Your task to perform on an android device: clear all cookies in the chrome app Image 0: 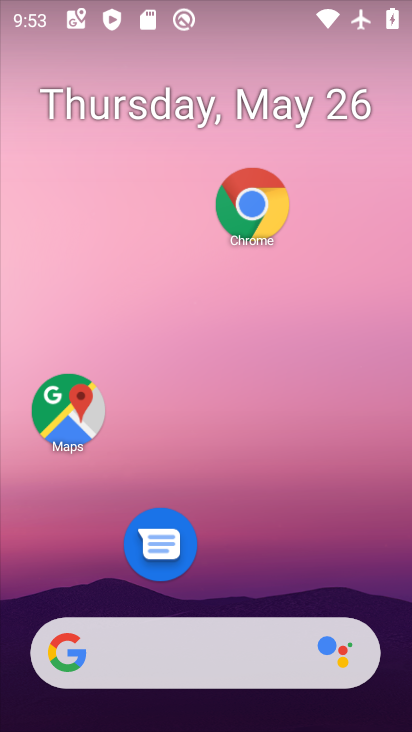
Step 0: click (247, 199)
Your task to perform on an android device: clear all cookies in the chrome app Image 1: 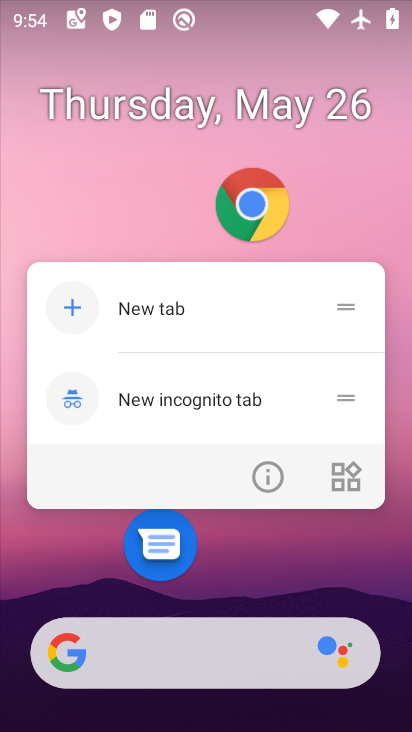
Step 1: click (251, 202)
Your task to perform on an android device: clear all cookies in the chrome app Image 2: 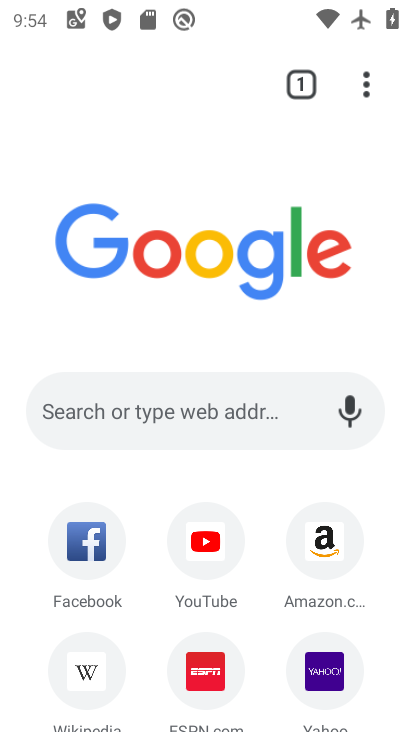
Step 2: click (365, 81)
Your task to perform on an android device: clear all cookies in the chrome app Image 3: 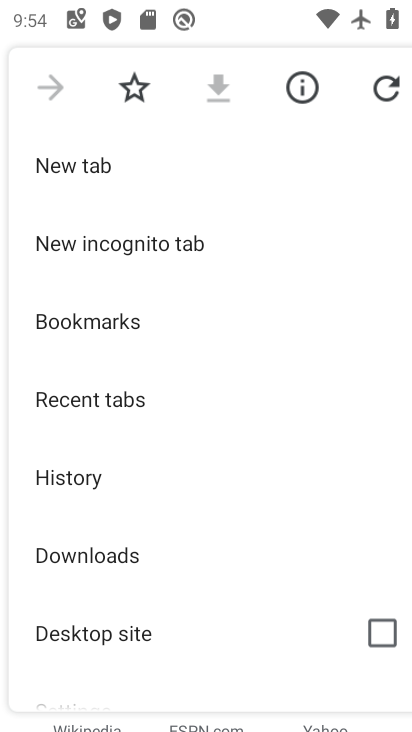
Step 3: click (125, 470)
Your task to perform on an android device: clear all cookies in the chrome app Image 4: 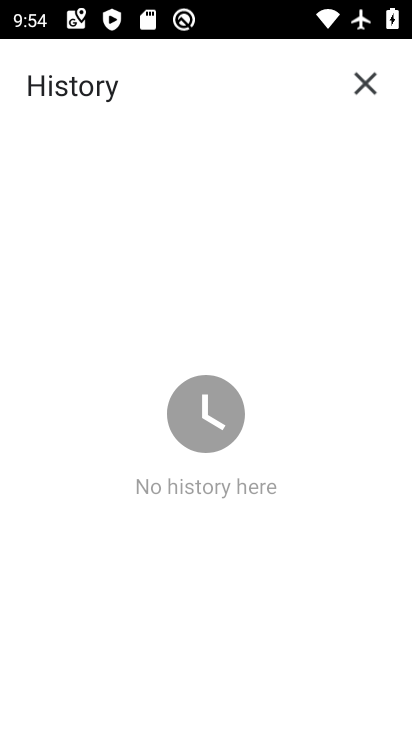
Step 4: task complete